Your task to perform on an android device: Is it going to rain tomorrow? Image 0: 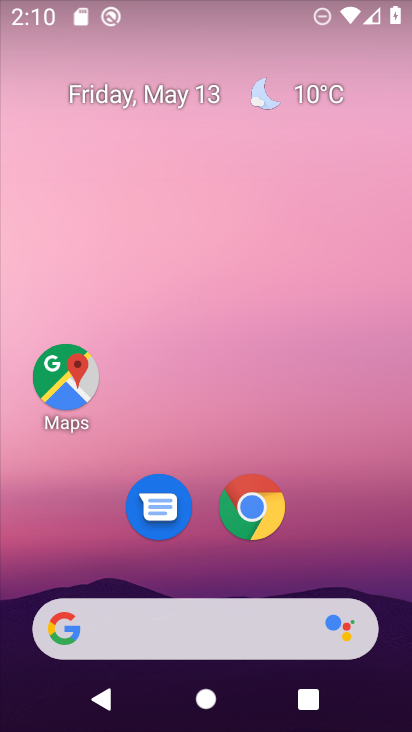
Step 0: click (313, 86)
Your task to perform on an android device: Is it going to rain tomorrow? Image 1: 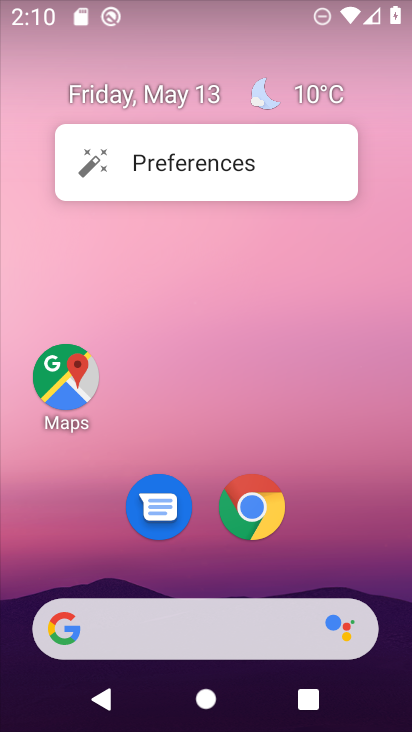
Step 1: click (313, 87)
Your task to perform on an android device: Is it going to rain tomorrow? Image 2: 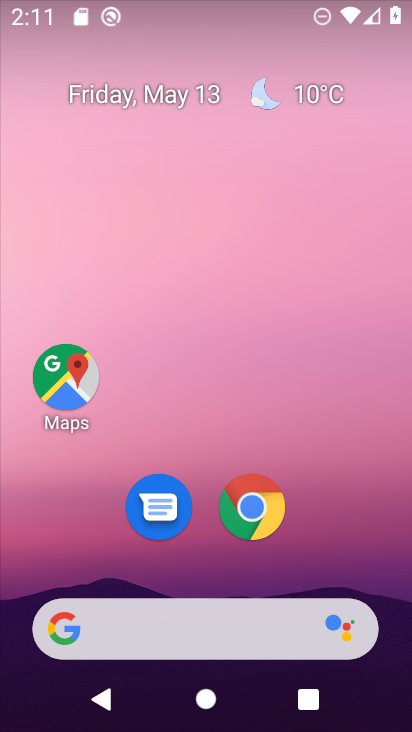
Step 2: click (313, 86)
Your task to perform on an android device: Is it going to rain tomorrow? Image 3: 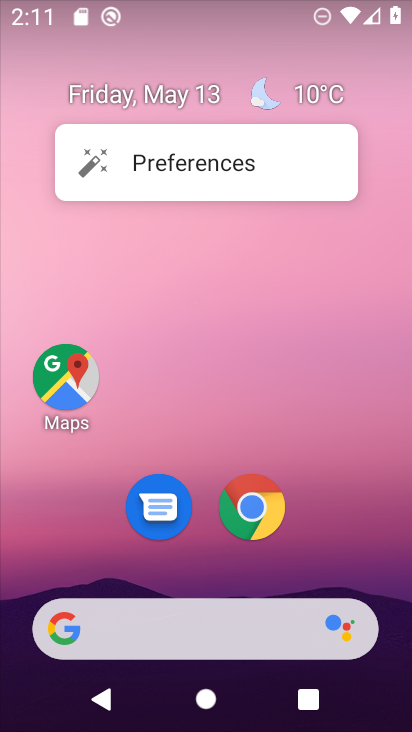
Step 3: click (313, 86)
Your task to perform on an android device: Is it going to rain tomorrow? Image 4: 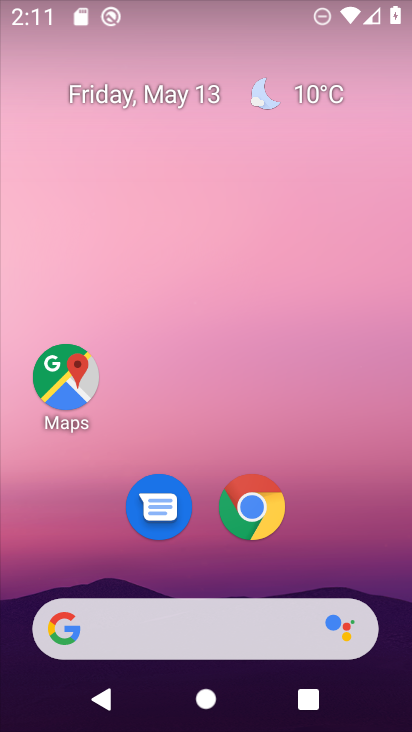
Step 4: click (327, 99)
Your task to perform on an android device: Is it going to rain tomorrow? Image 5: 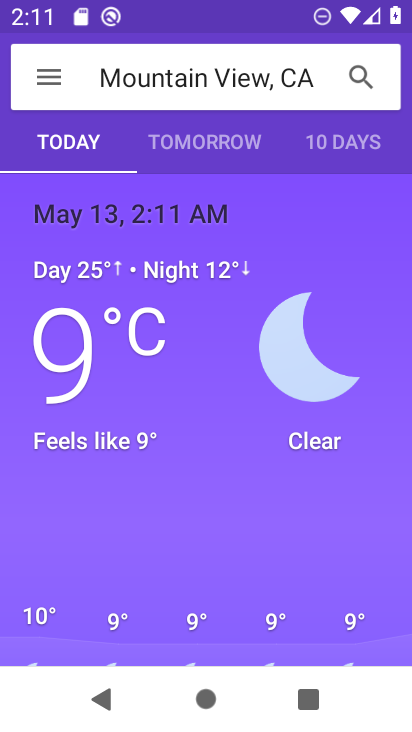
Step 5: task complete